Your task to perform on an android device: open the mobile data screen to see how much data has been used Image 0: 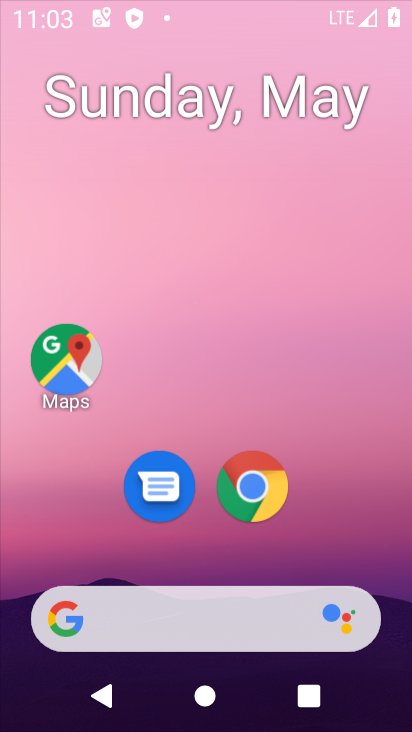
Step 0: click (237, 98)
Your task to perform on an android device: open the mobile data screen to see how much data has been used Image 1: 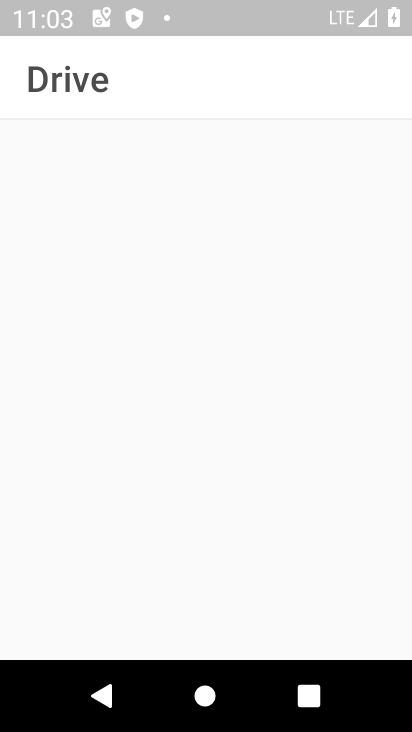
Step 1: press home button
Your task to perform on an android device: open the mobile data screen to see how much data has been used Image 2: 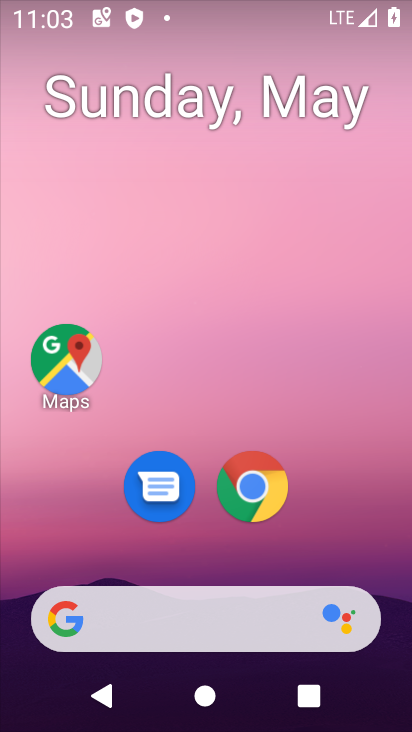
Step 2: drag from (298, 550) to (283, 26)
Your task to perform on an android device: open the mobile data screen to see how much data has been used Image 3: 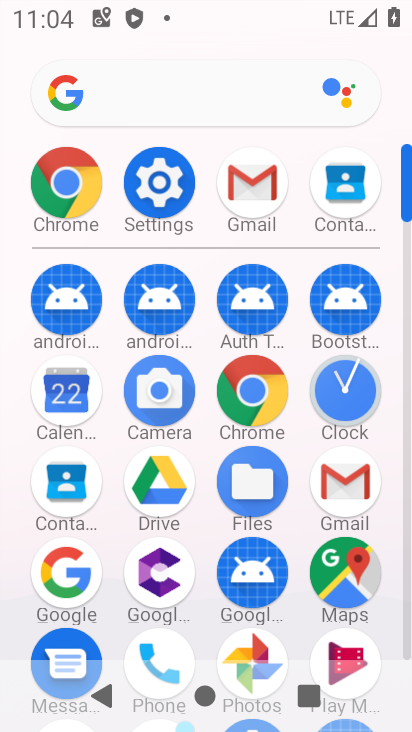
Step 3: click (150, 184)
Your task to perform on an android device: open the mobile data screen to see how much data has been used Image 4: 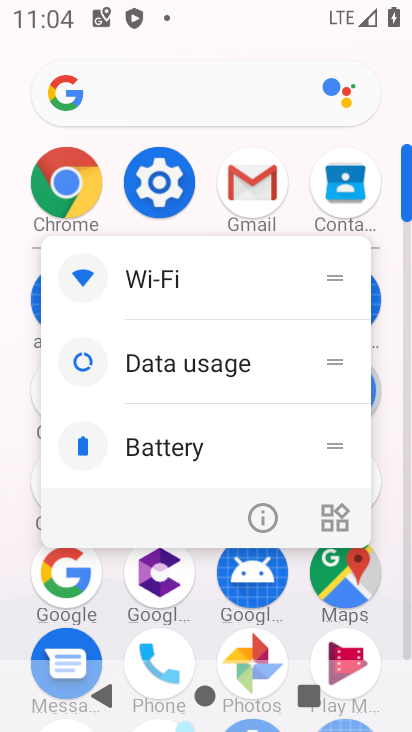
Step 4: click (154, 189)
Your task to perform on an android device: open the mobile data screen to see how much data has been used Image 5: 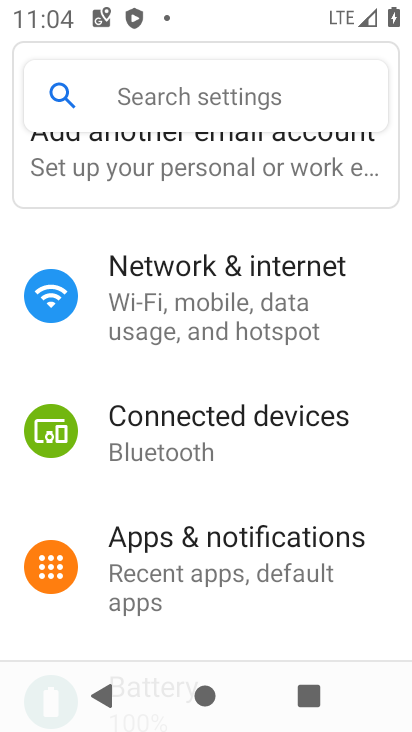
Step 5: click (177, 309)
Your task to perform on an android device: open the mobile data screen to see how much data has been used Image 6: 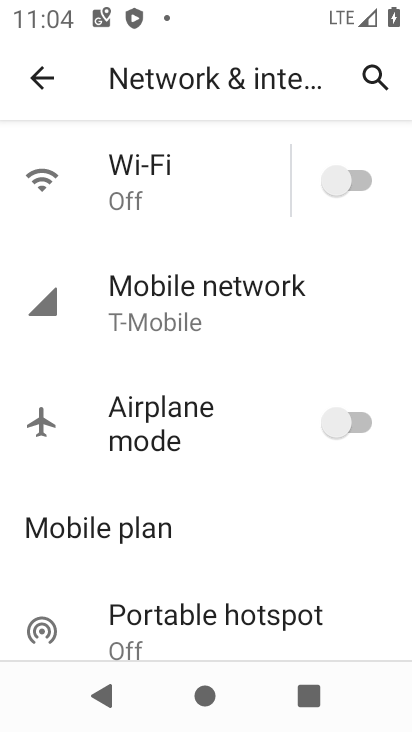
Step 6: drag from (171, 581) to (190, 174)
Your task to perform on an android device: open the mobile data screen to see how much data has been used Image 7: 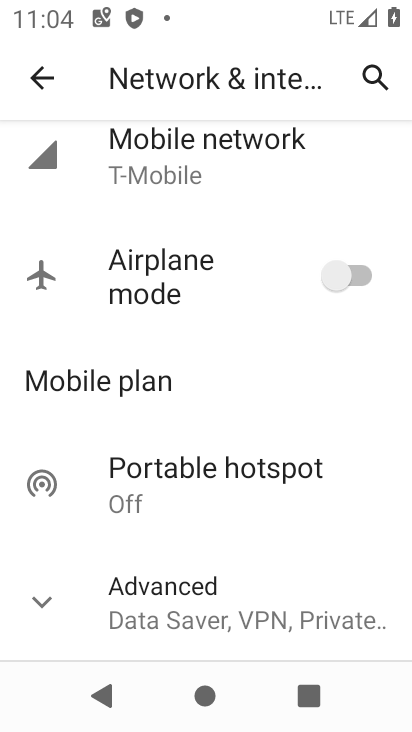
Step 7: click (154, 192)
Your task to perform on an android device: open the mobile data screen to see how much data has been used Image 8: 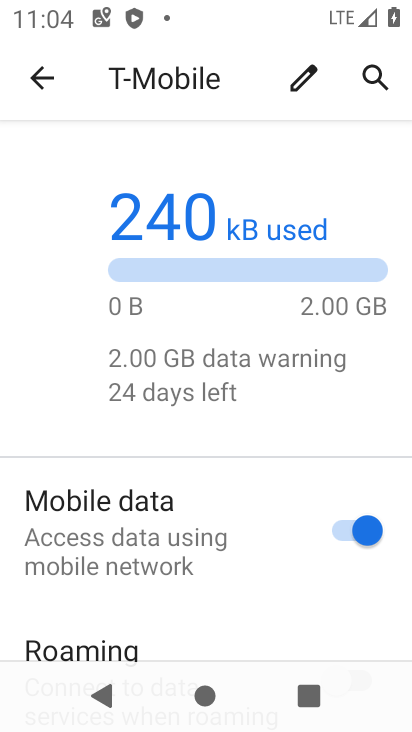
Step 8: task complete